Your task to perform on an android device: Open settings Image 0: 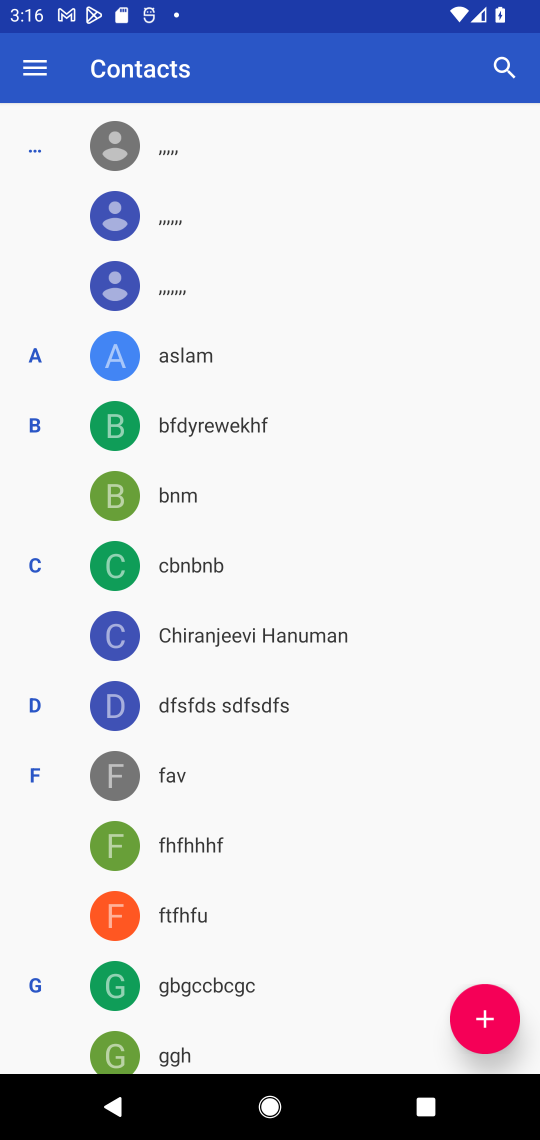
Step 0: press home button
Your task to perform on an android device: Open settings Image 1: 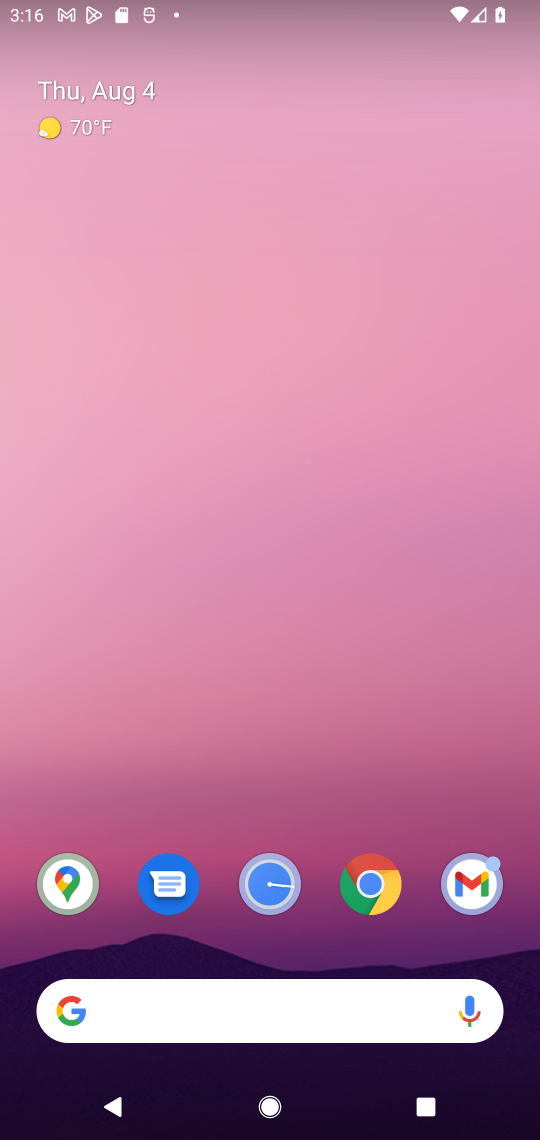
Step 1: drag from (331, 955) to (327, 143)
Your task to perform on an android device: Open settings Image 2: 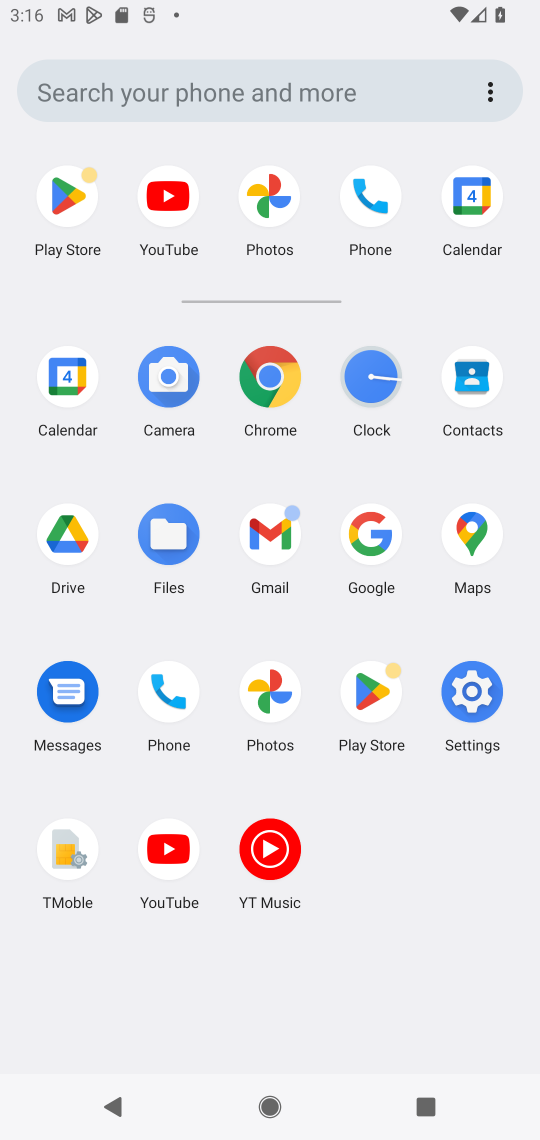
Step 2: click (490, 691)
Your task to perform on an android device: Open settings Image 3: 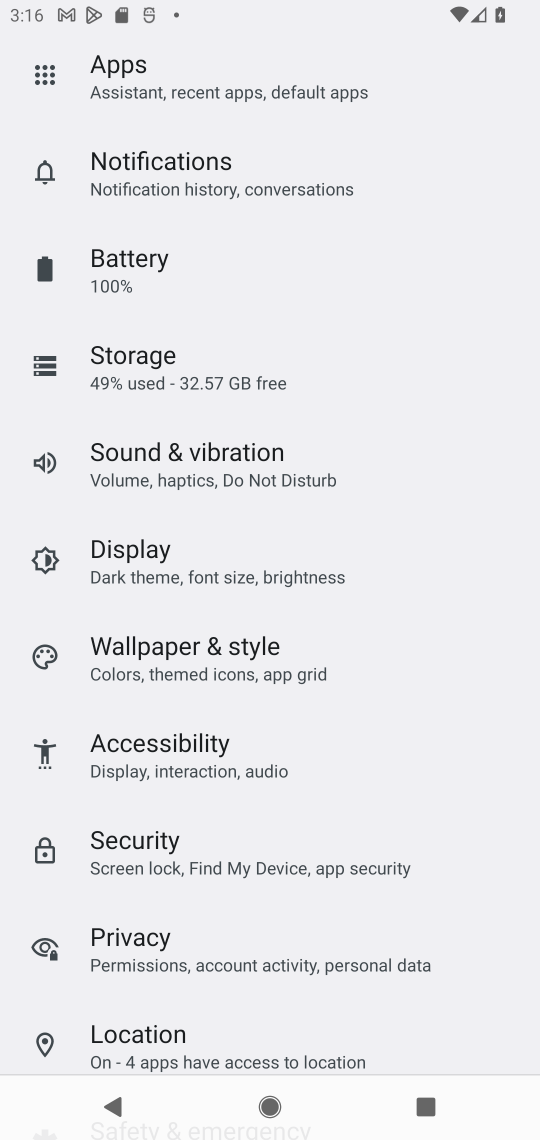
Step 3: task complete